Your task to perform on an android device: Open Yahoo.com Image 0: 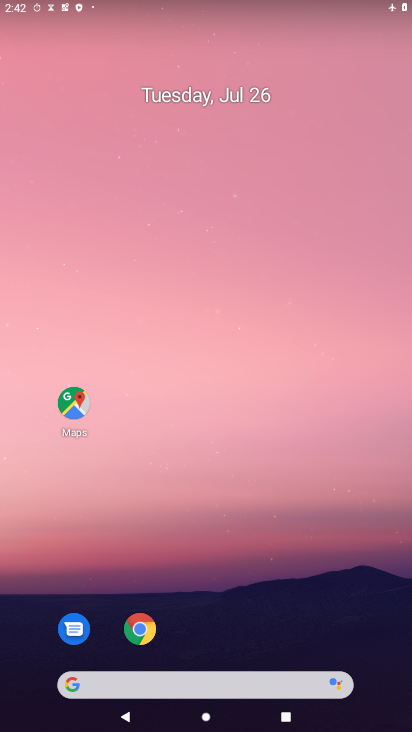
Step 0: drag from (203, 632) to (95, 0)
Your task to perform on an android device: Open Yahoo.com Image 1: 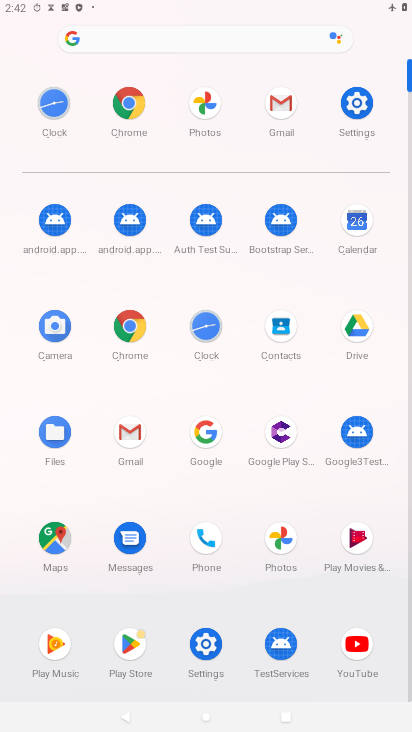
Step 1: click (130, 325)
Your task to perform on an android device: Open Yahoo.com Image 2: 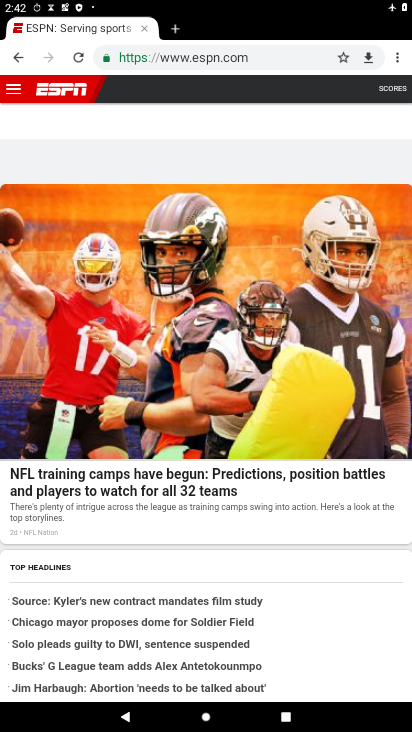
Step 2: click (186, 62)
Your task to perform on an android device: Open Yahoo.com Image 3: 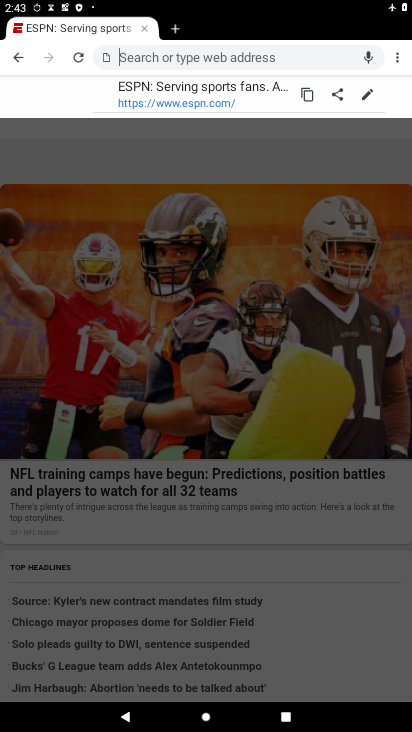
Step 3: type "yahoo.com"
Your task to perform on an android device: Open Yahoo.com Image 4: 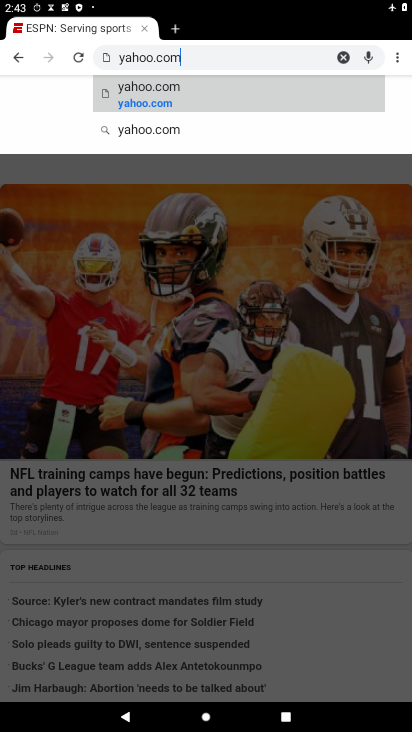
Step 4: click (142, 94)
Your task to perform on an android device: Open Yahoo.com Image 5: 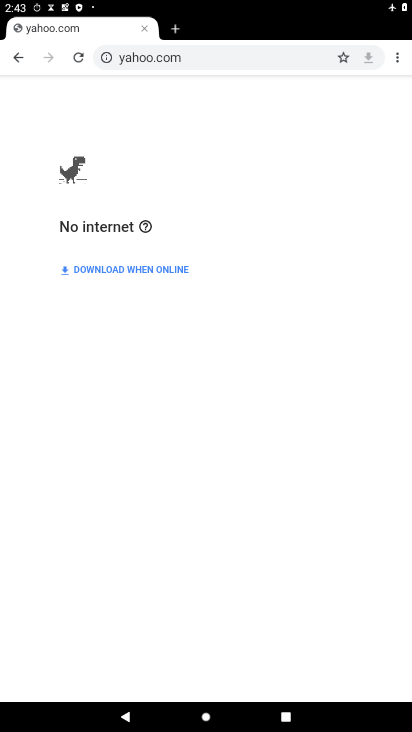
Step 5: task complete